Your task to perform on an android device: clear all cookies in the chrome app Image 0: 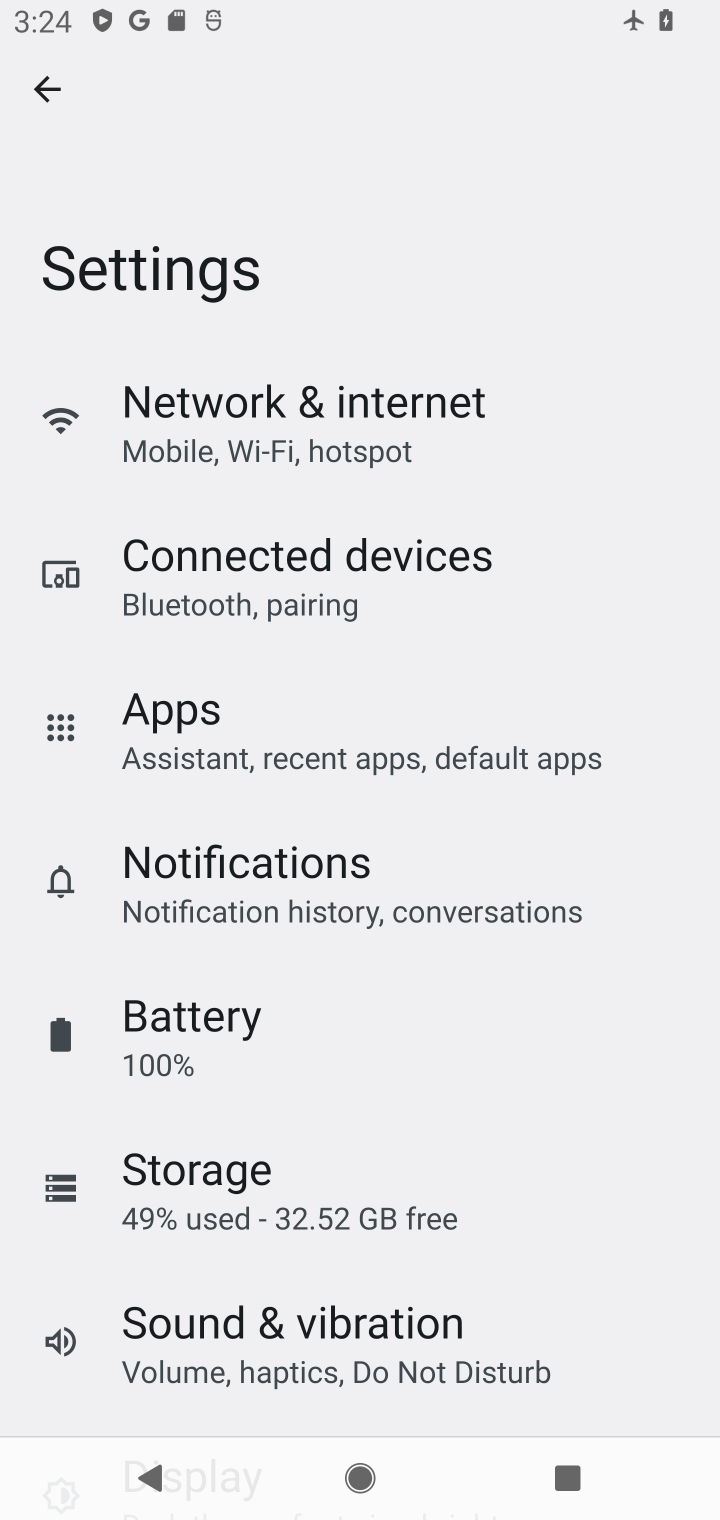
Step 0: press home button
Your task to perform on an android device: clear all cookies in the chrome app Image 1: 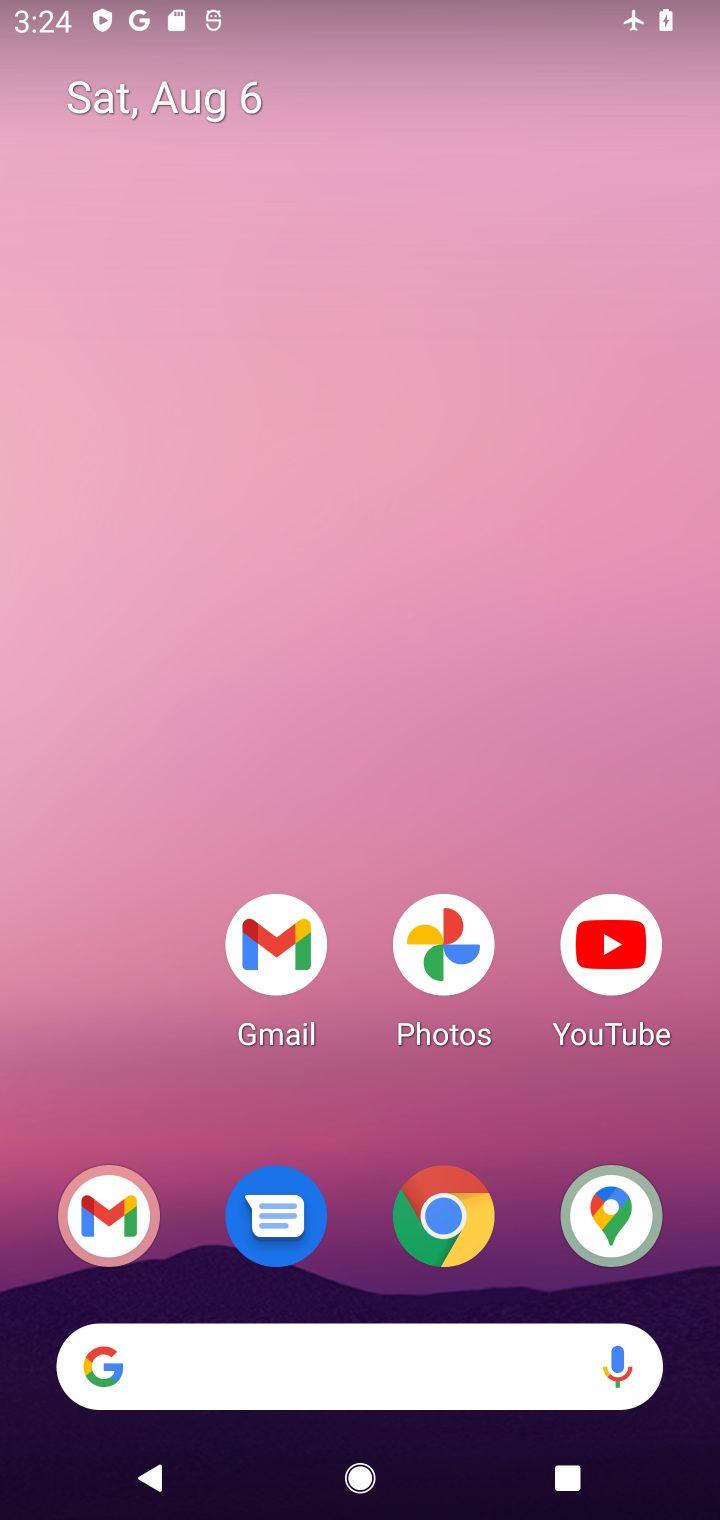
Step 1: click (436, 1229)
Your task to perform on an android device: clear all cookies in the chrome app Image 2: 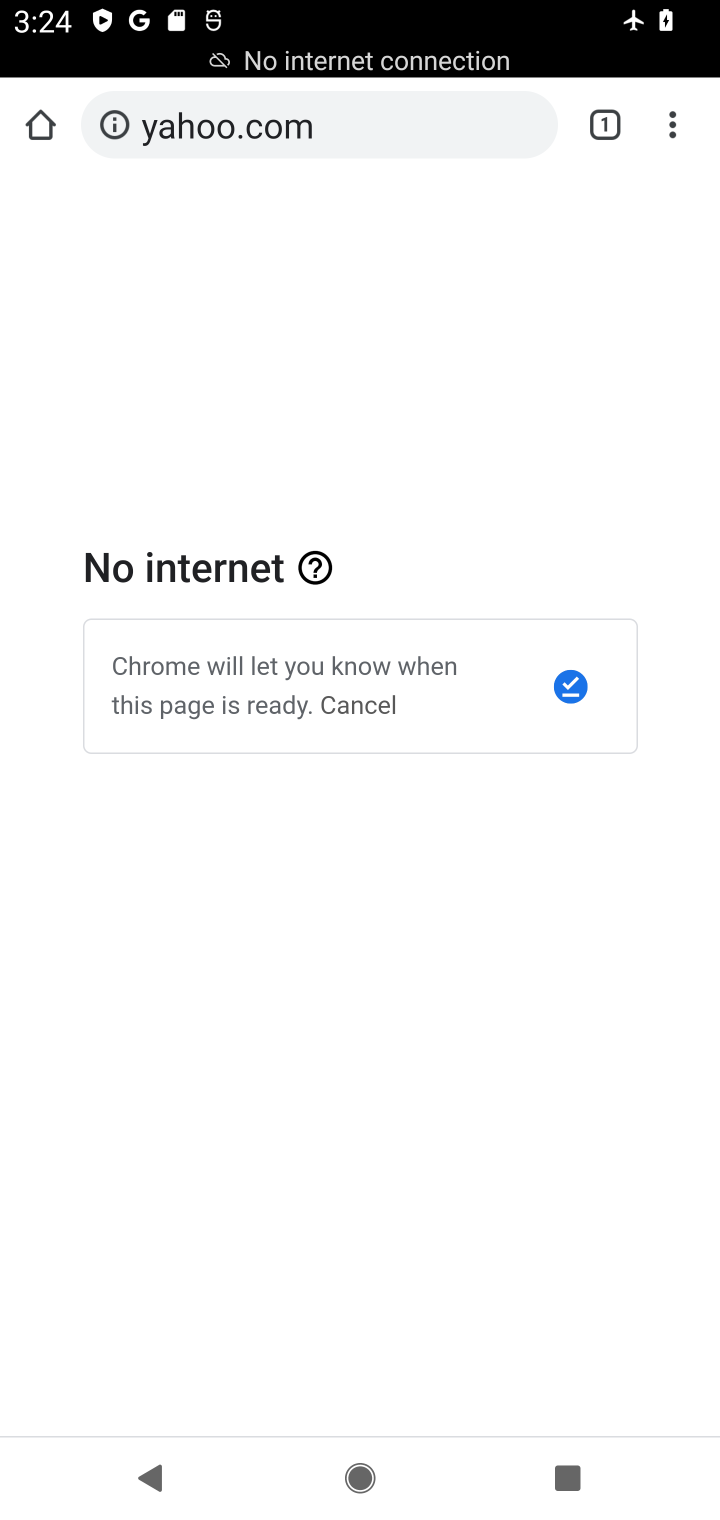
Step 2: click (674, 97)
Your task to perform on an android device: clear all cookies in the chrome app Image 3: 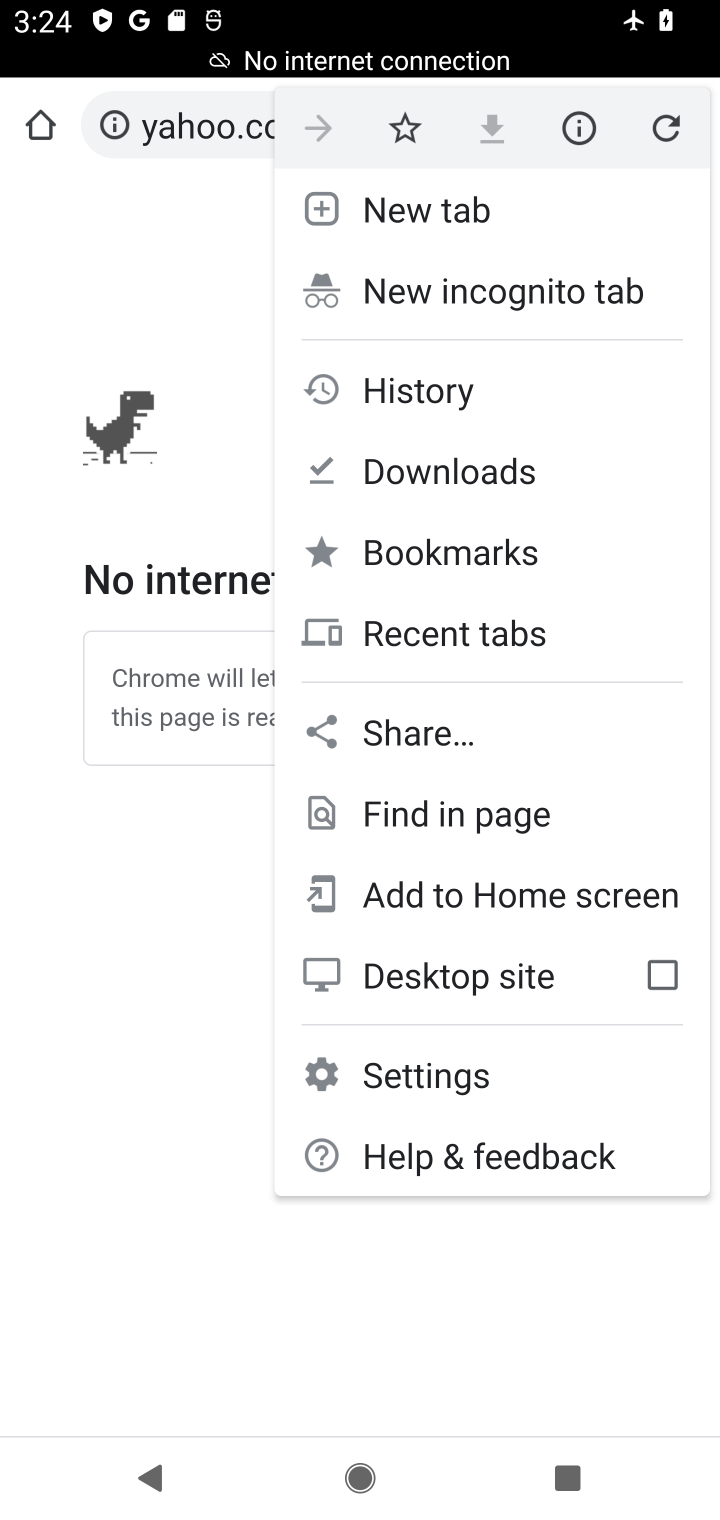
Step 3: click (420, 377)
Your task to perform on an android device: clear all cookies in the chrome app Image 4: 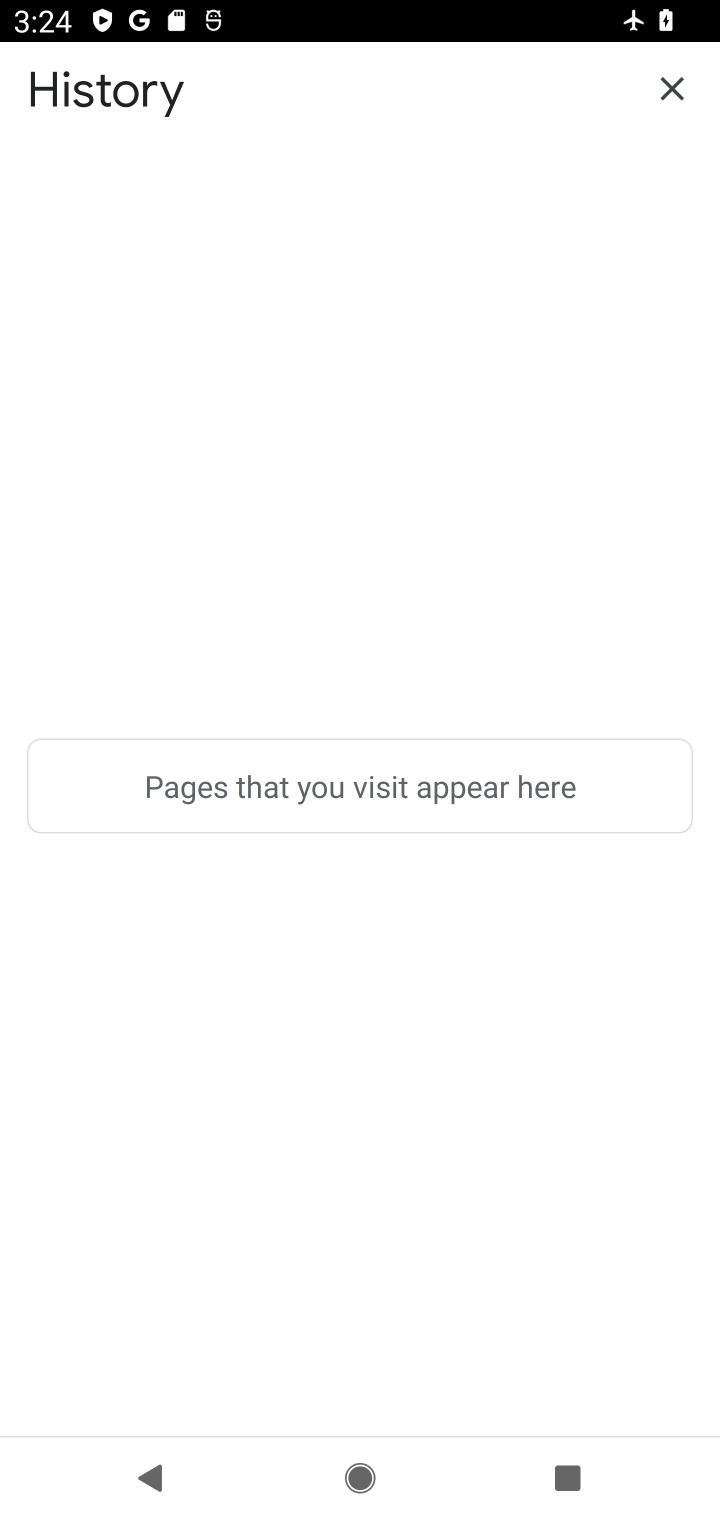
Step 4: task complete